Your task to perform on an android device: open app "Facebook Messenger" Image 0: 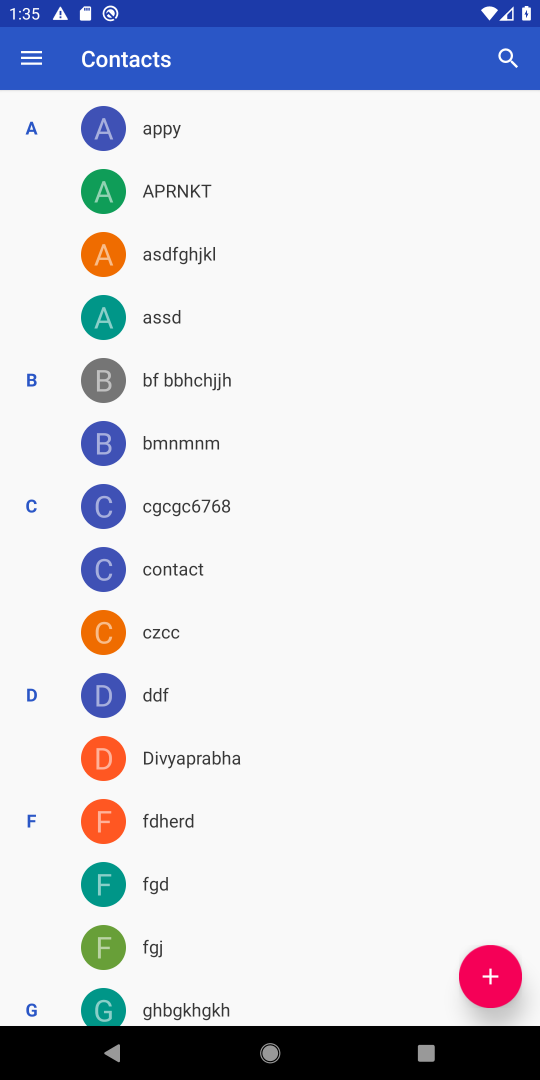
Step 0: press home button
Your task to perform on an android device: open app "Facebook Messenger" Image 1: 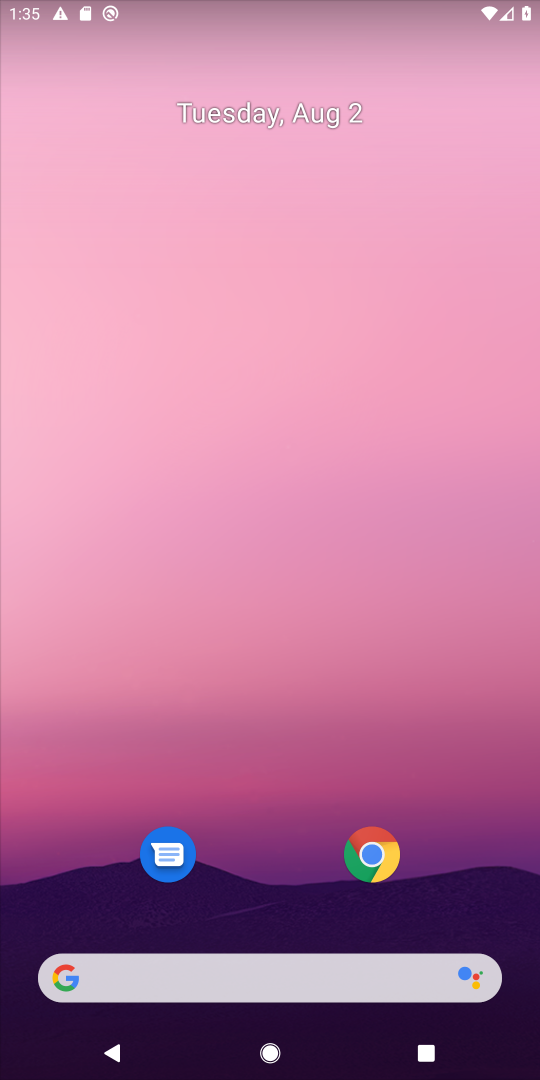
Step 1: drag from (307, 499) to (308, 49)
Your task to perform on an android device: open app "Facebook Messenger" Image 2: 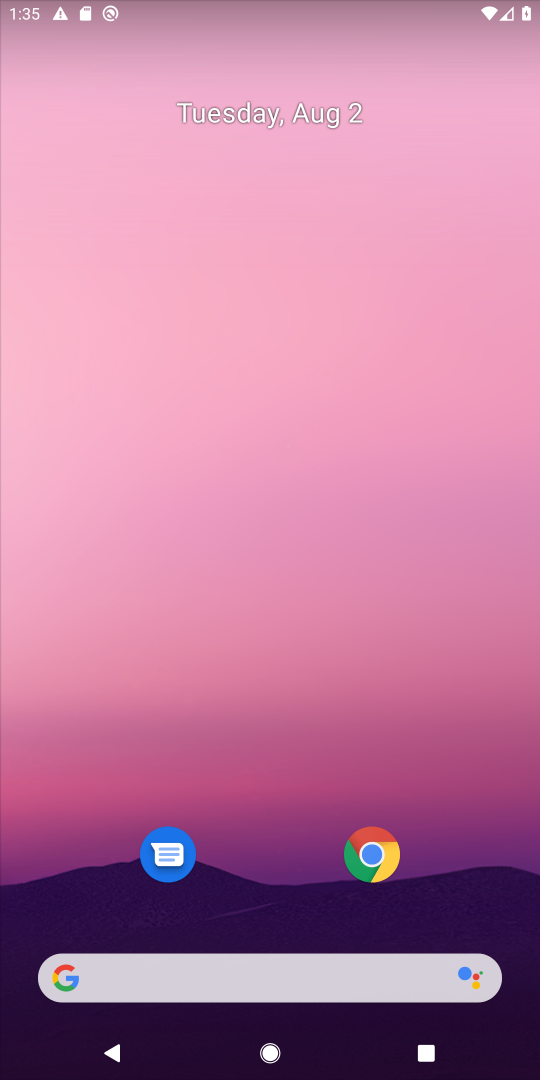
Step 2: drag from (321, 963) to (322, 10)
Your task to perform on an android device: open app "Facebook Messenger" Image 3: 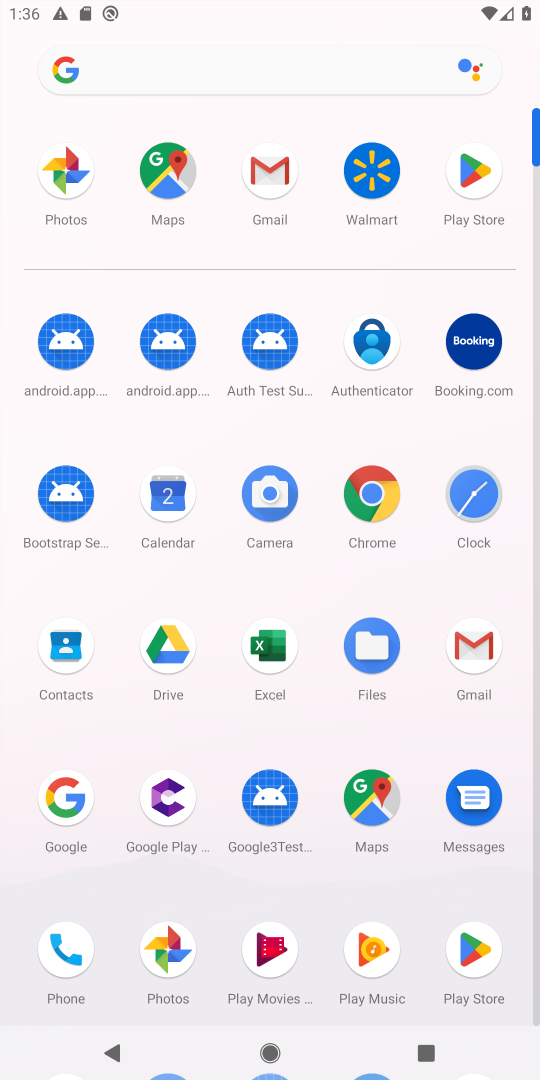
Step 3: click (468, 184)
Your task to perform on an android device: open app "Facebook Messenger" Image 4: 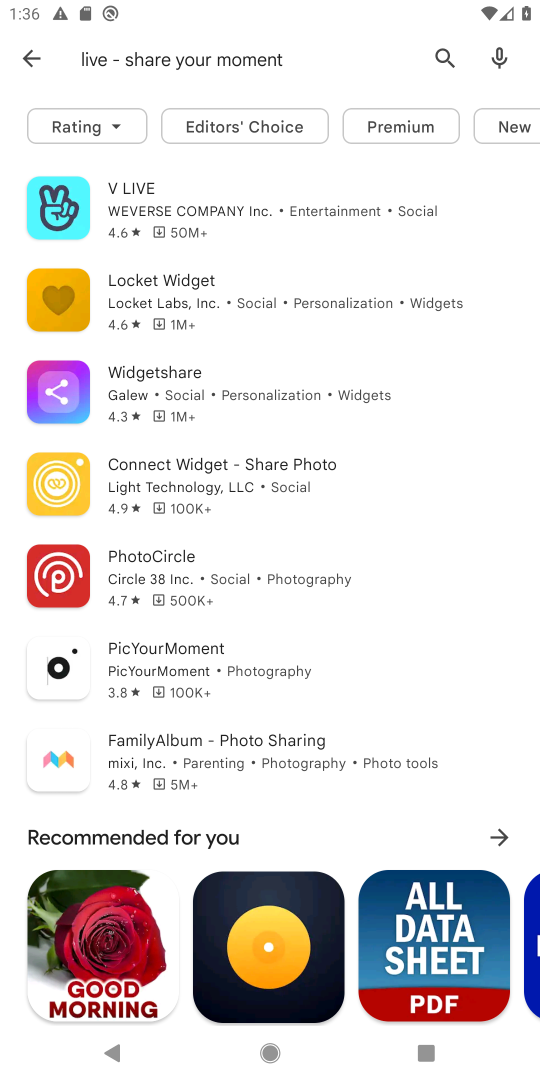
Step 4: click (440, 54)
Your task to perform on an android device: open app "Facebook Messenger" Image 5: 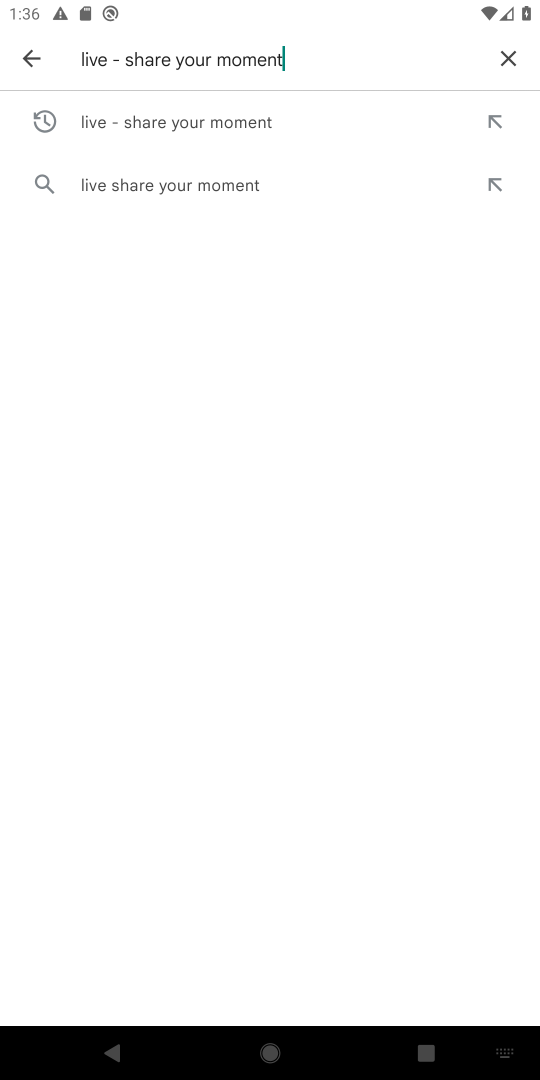
Step 5: click (515, 53)
Your task to perform on an android device: open app "Facebook Messenger" Image 6: 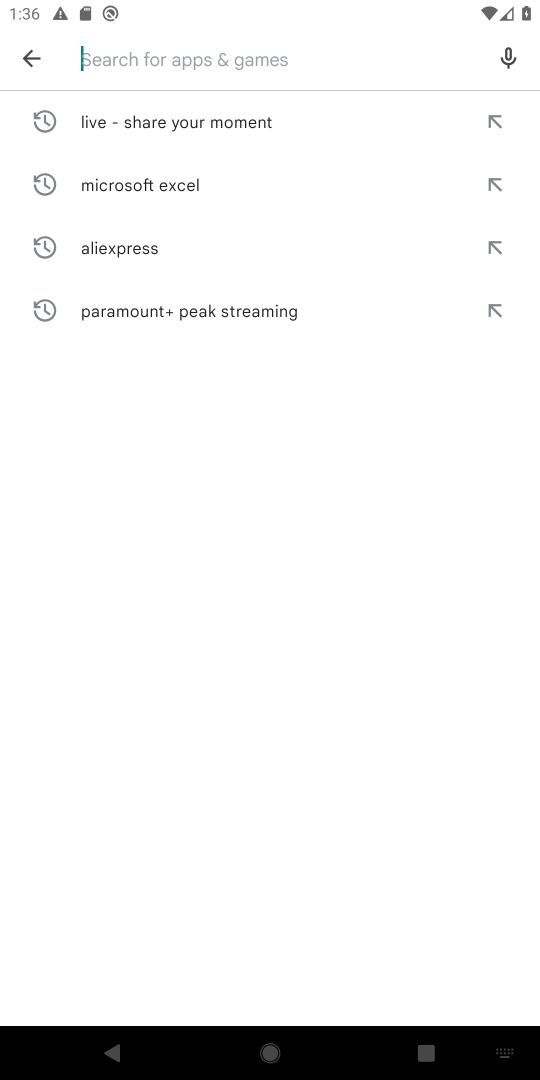
Step 6: type "Facebook Messenger"
Your task to perform on an android device: open app "Facebook Messenger" Image 7: 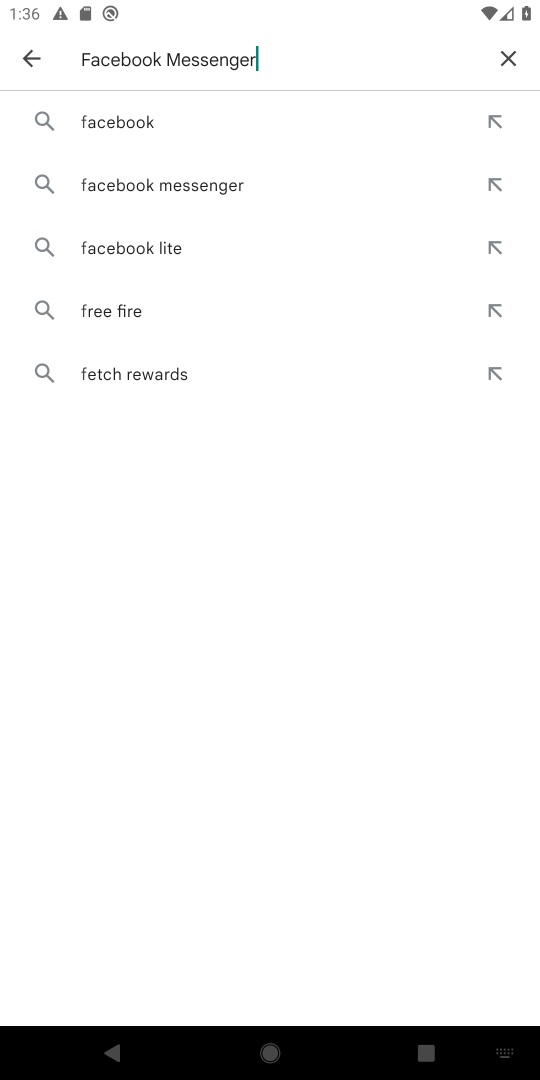
Step 7: type ""
Your task to perform on an android device: open app "Facebook Messenger" Image 8: 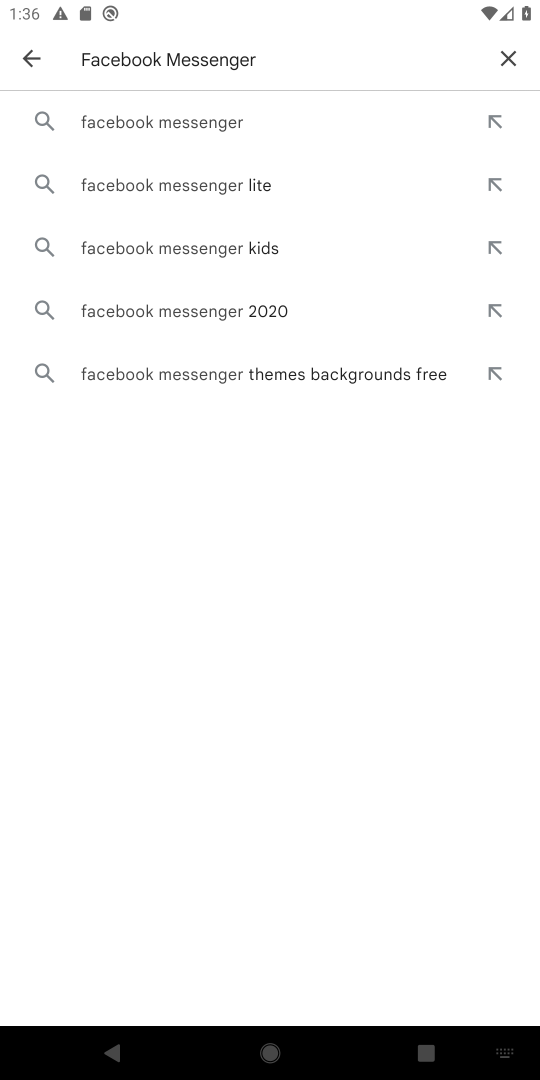
Step 8: click (139, 124)
Your task to perform on an android device: open app "Facebook Messenger" Image 9: 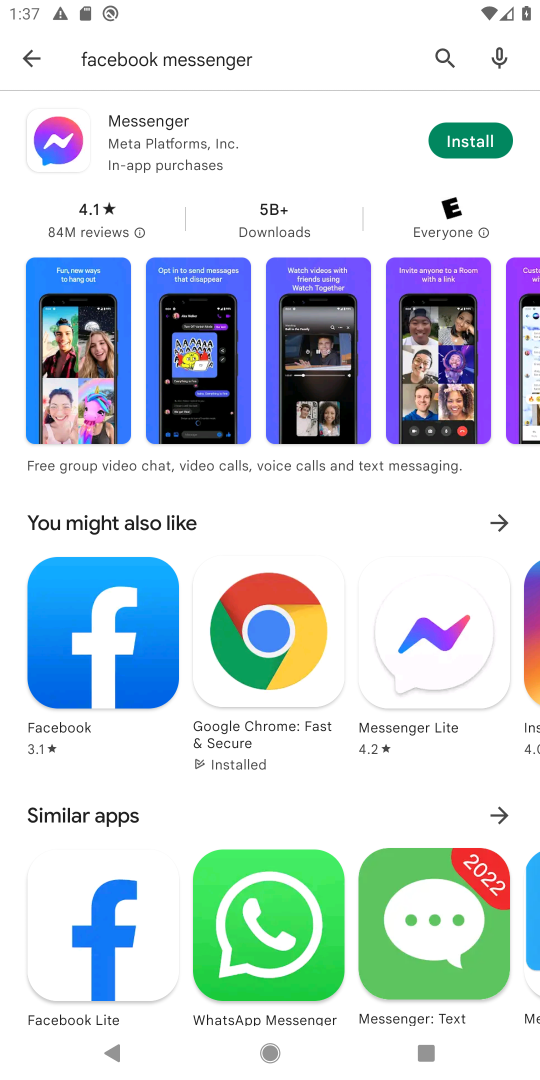
Step 9: task complete